Your task to perform on an android device: allow notifications from all sites in the chrome app Image 0: 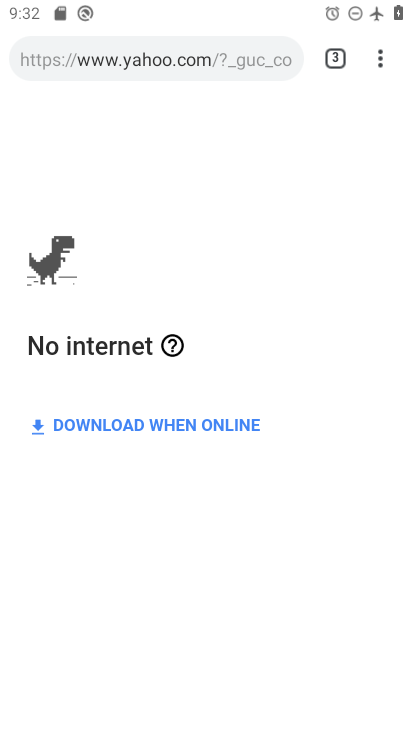
Step 0: press home button
Your task to perform on an android device: allow notifications from all sites in the chrome app Image 1: 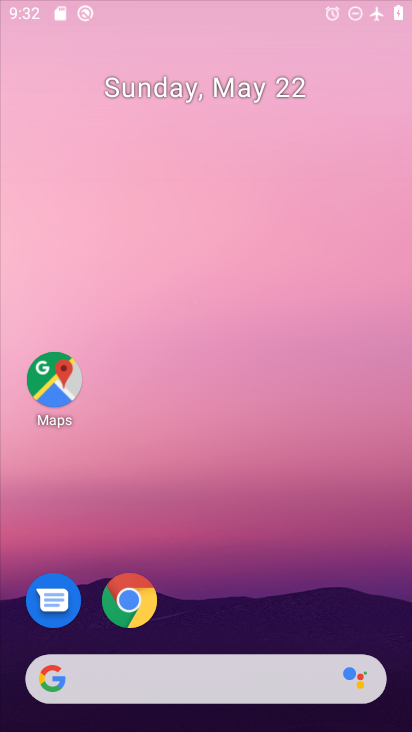
Step 1: drag from (211, 665) to (242, 143)
Your task to perform on an android device: allow notifications from all sites in the chrome app Image 2: 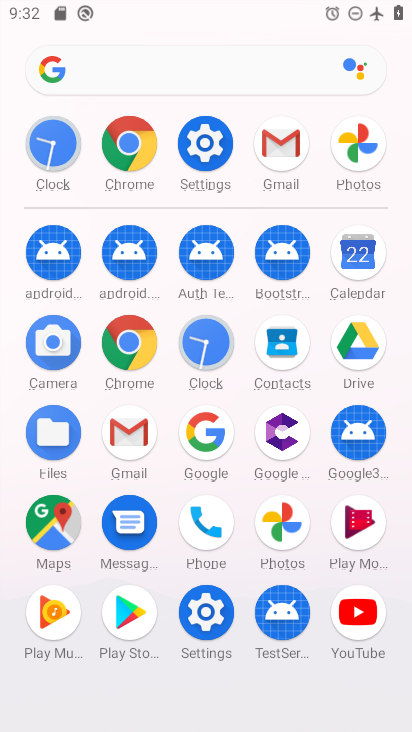
Step 2: click (132, 163)
Your task to perform on an android device: allow notifications from all sites in the chrome app Image 3: 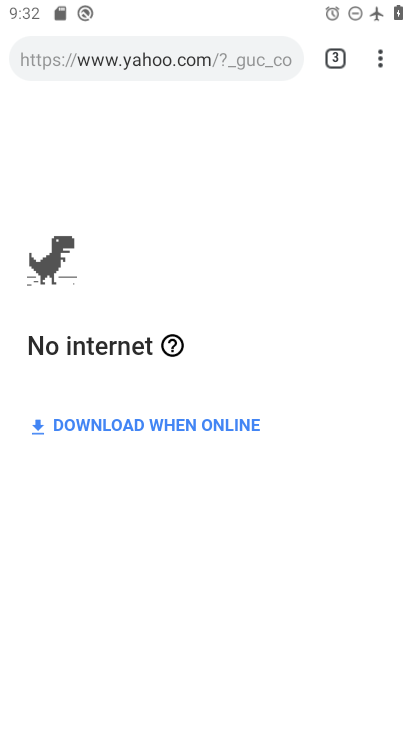
Step 3: click (383, 61)
Your task to perform on an android device: allow notifications from all sites in the chrome app Image 4: 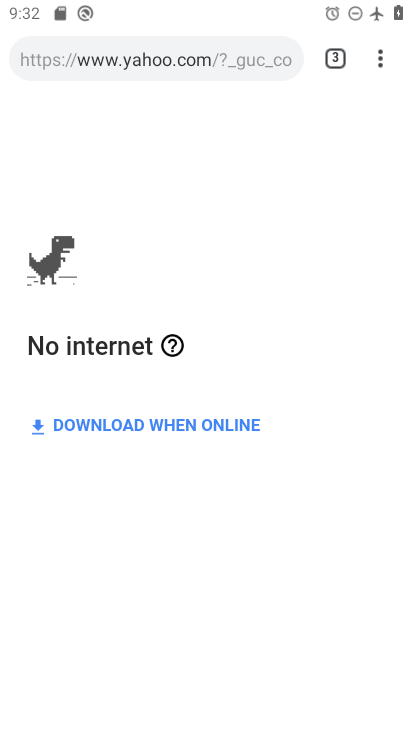
Step 4: click (387, 73)
Your task to perform on an android device: allow notifications from all sites in the chrome app Image 5: 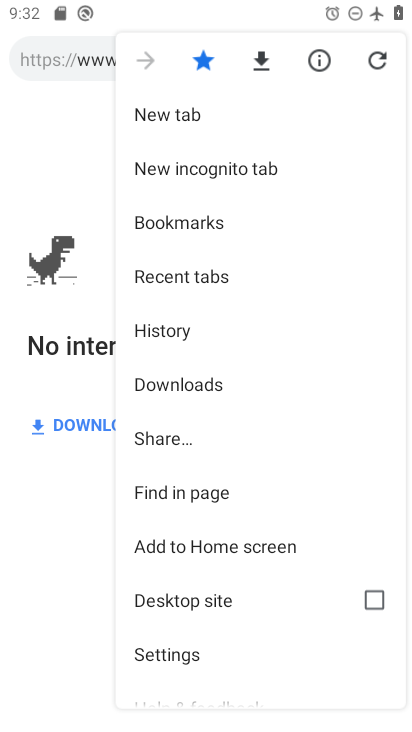
Step 5: click (191, 658)
Your task to perform on an android device: allow notifications from all sites in the chrome app Image 6: 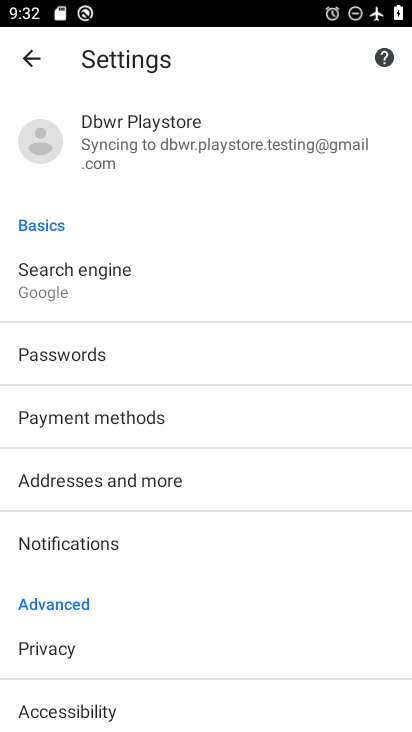
Step 6: drag from (198, 574) to (220, 285)
Your task to perform on an android device: allow notifications from all sites in the chrome app Image 7: 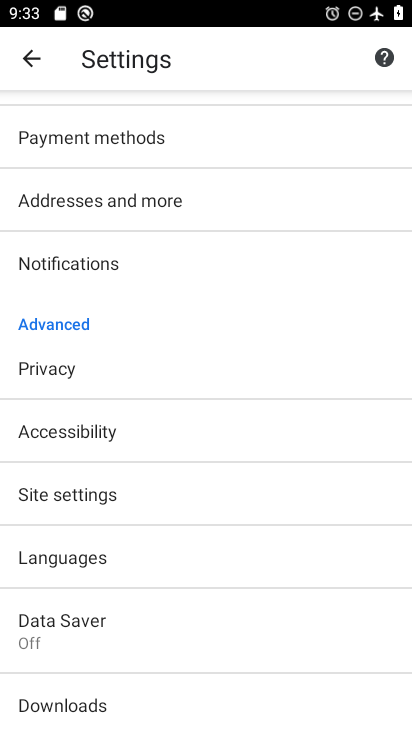
Step 7: click (115, 502)
Your task to perform on an android device: allow notifications from all sites in the chrome app Image 8: 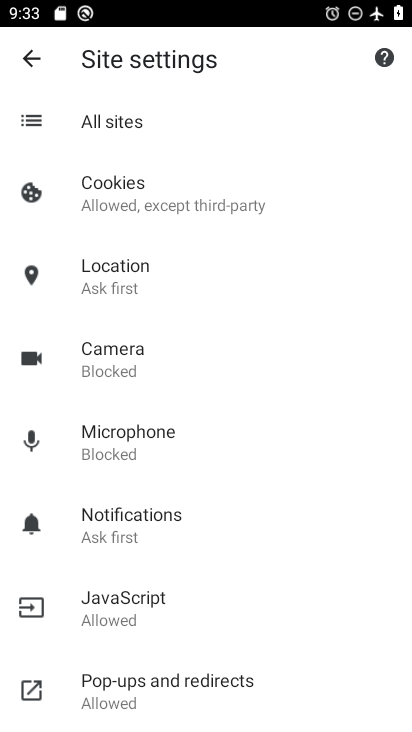
Step 8: click (39, 54)
Your task to perform on an android device: allow notifications from all sites in the chrome app Image 9: 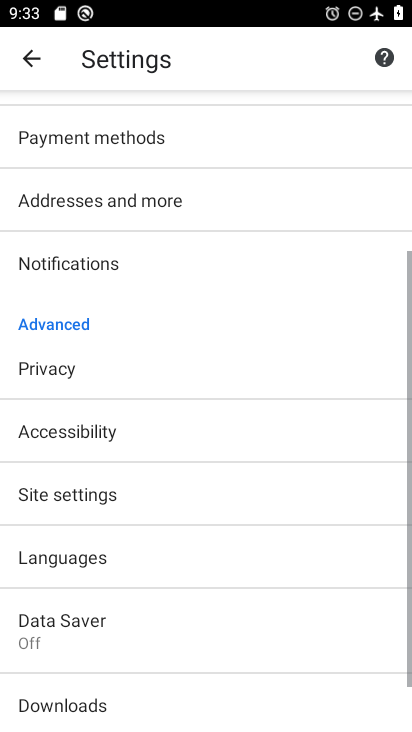
Step 9: drag from (218, 243) to (202, 554)
Your task to perform on an android device: allow notifications from all sites in the chrome app Image 10: 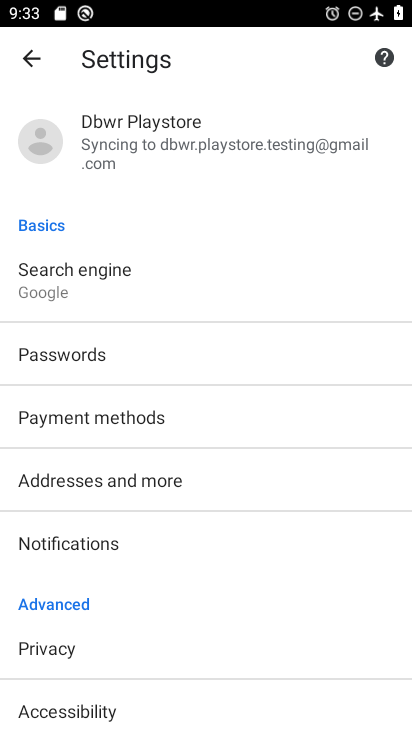
Step 10: click (119, 535)
Your task to perform on an android device: allow notifications from all sites in the chrome app Image 11: 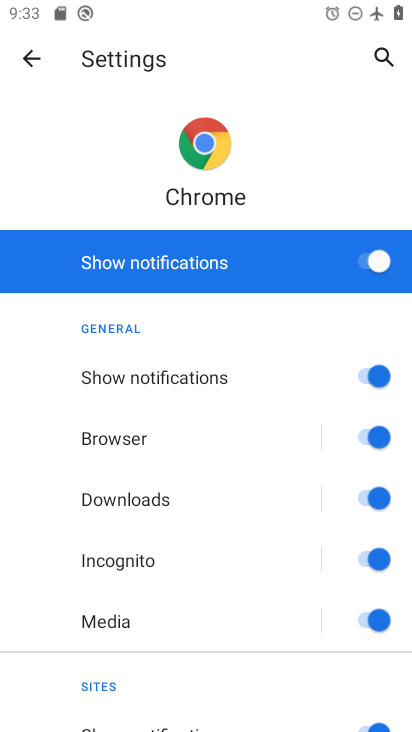
Step 11: task complete